Your task to perform on an android device: delete a single message in the gmail app Image 0: 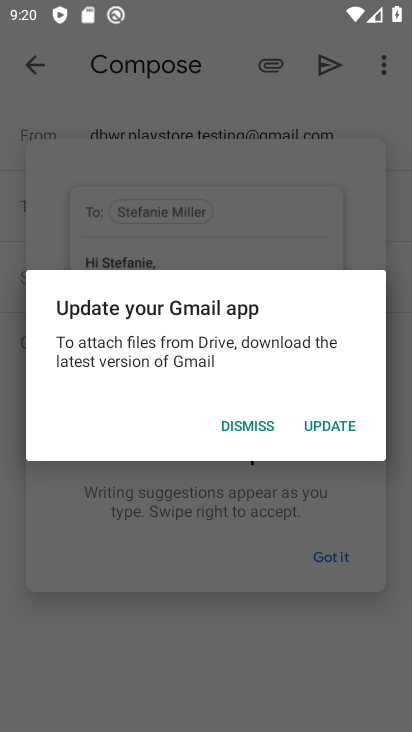
Step 0: press back button
Your task to perform on an android device: delete a single message in the gmail app Image 1: 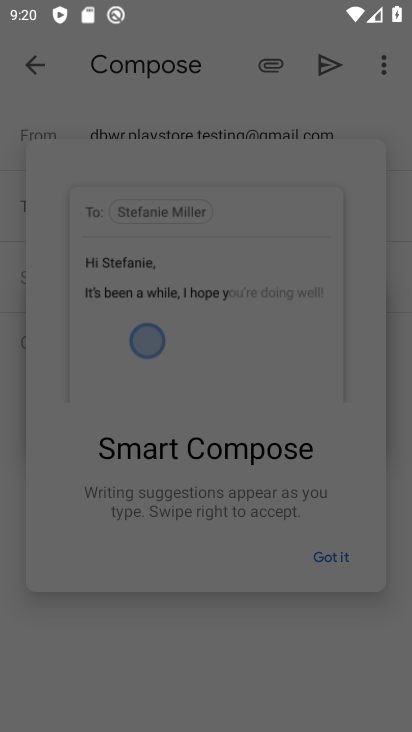
Step 1: press home button
Your task to perform on an android device: delete a single message in the gmail app Image 2: 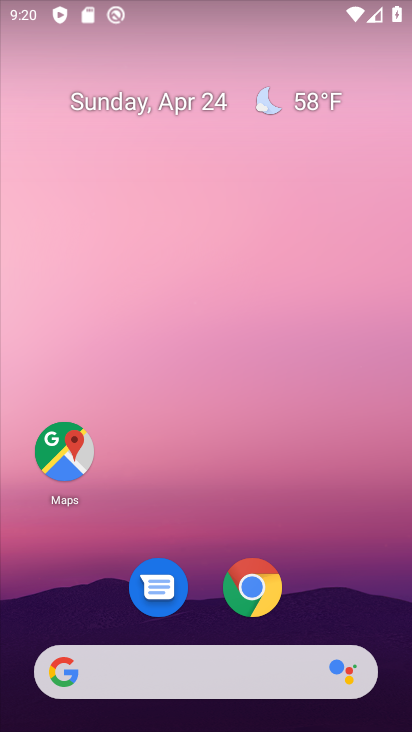
Step 2: drag from (153, 544) to (226, 50)
Your task to perform on an android device: delete a single message in the gmail app Image 3: 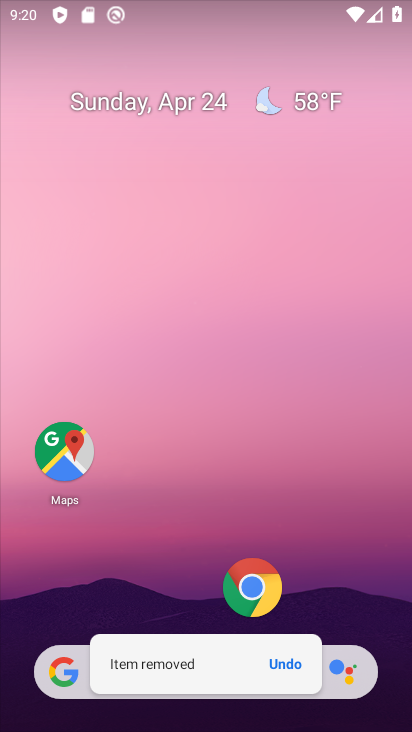
Step 3: drag from (107, 628) to (277, 52)
Your task to perform on an android device: delete a single message in the gmail app Image 4: 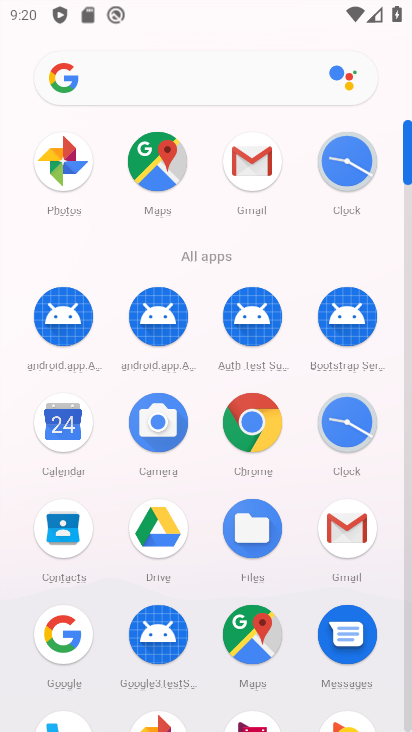
Step 4: drag from (139, 553) to (207, 284)
Your task to perform on an android device: delete a single message in the gmail app Image 5: 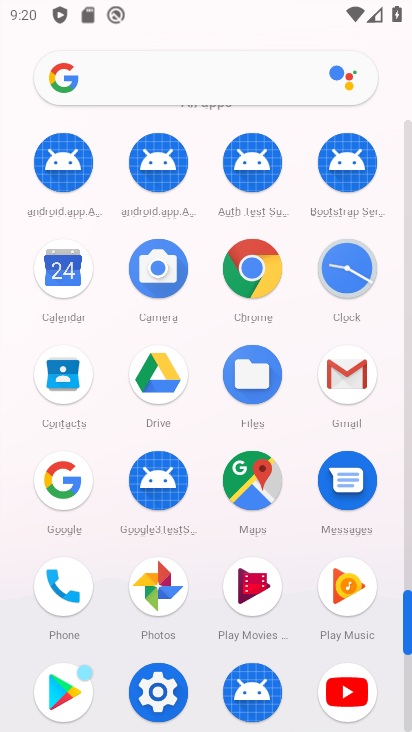
Step 5: click (349, 383)
Your task to perform on an android device: delete a single message in the gmail app Image 6: 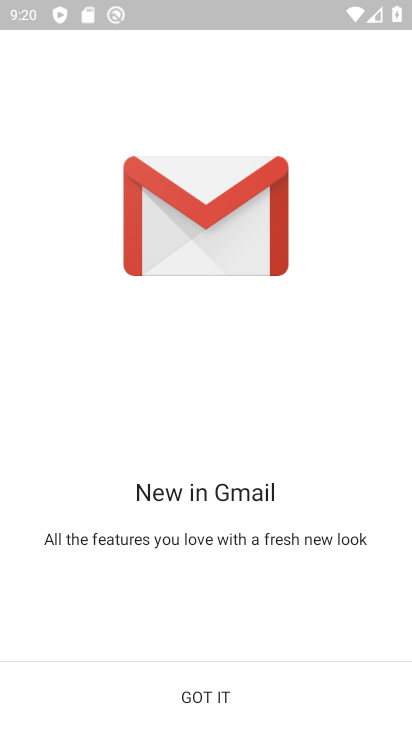
Step 6: click (259, 710)
Your task to perform on an android device: delete a single message in the gmail app Image 7: 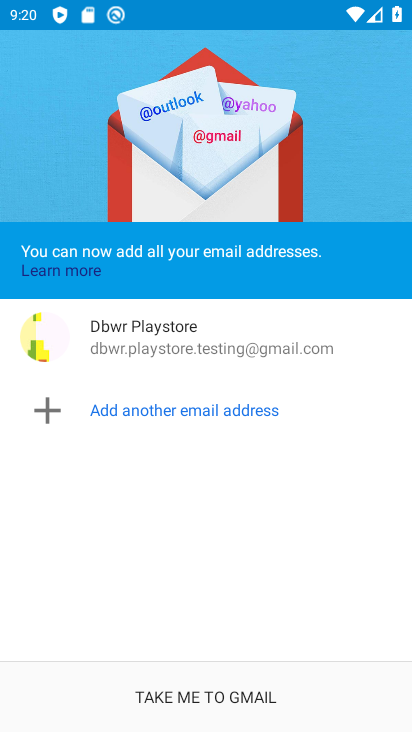
Step 7: click (265, 693)
Your task to perform on an android device: delete a single message in the gmail app Image 8: 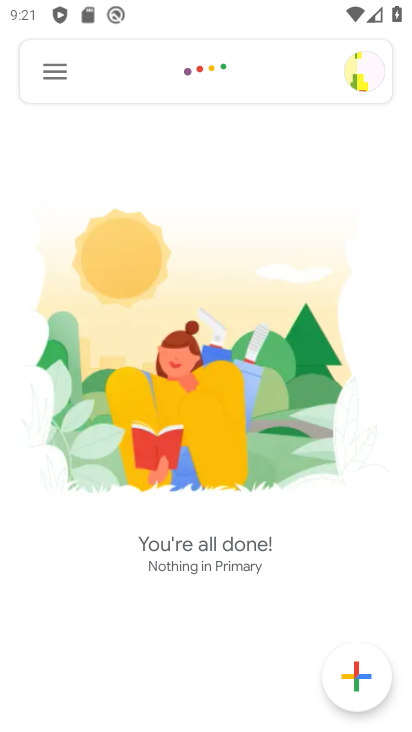
Step 8: click (37, 83)
Your task to perform on an android device: delete a single message in the gmail app Image 9: 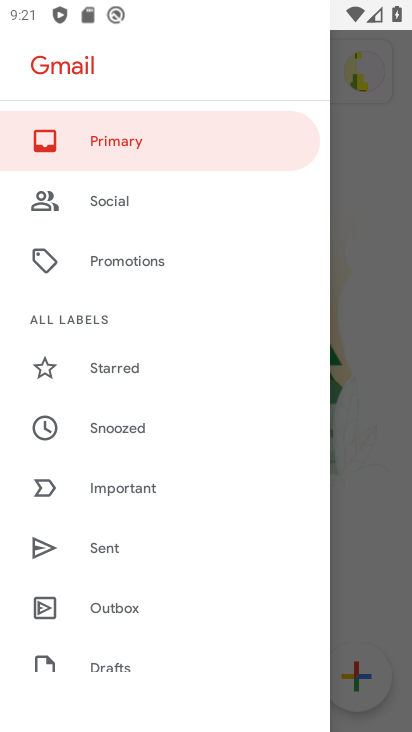
Step 9: drag from (186, 614) to (245, 343)
Your task to perform on an android device: delete a single message in the gmail app Image 10: 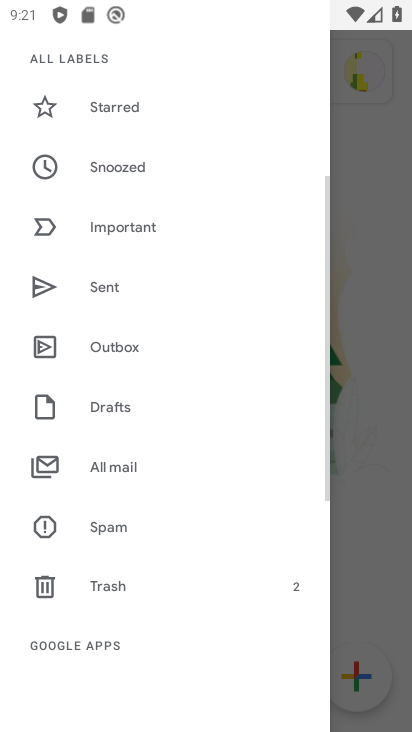
Step 10: click (162, 462)
Your task to perform on an android device: delete a single message in the gmail app Image 11: 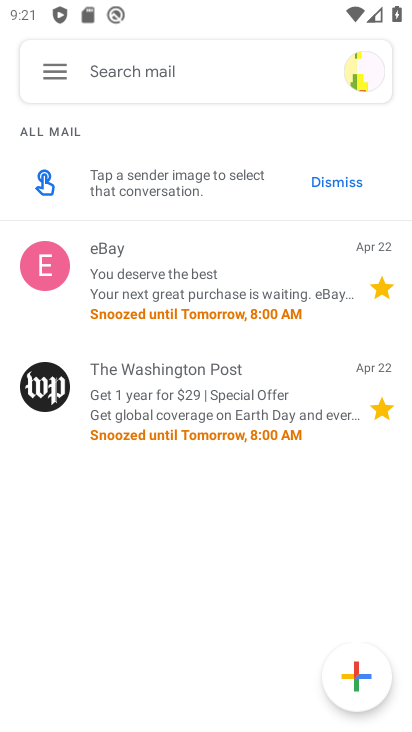
Step 11: click (198, 282)
Your task to perform on an android device: delete a single message in the gmail app Image 12: 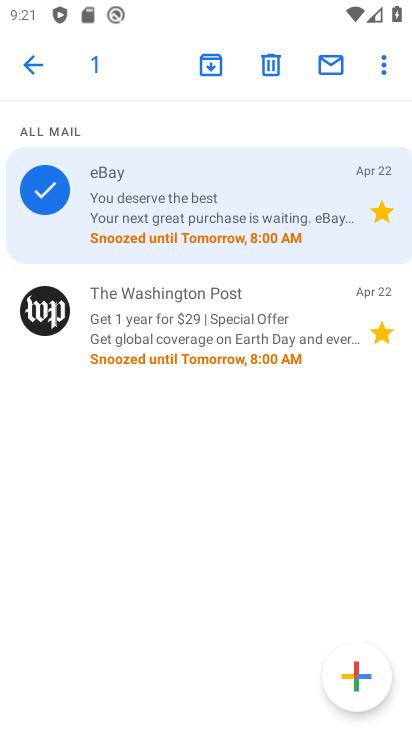
Step 12: click (276, 64)
Your task to perform on an android device: delete a single message in the gmail app Image 13: 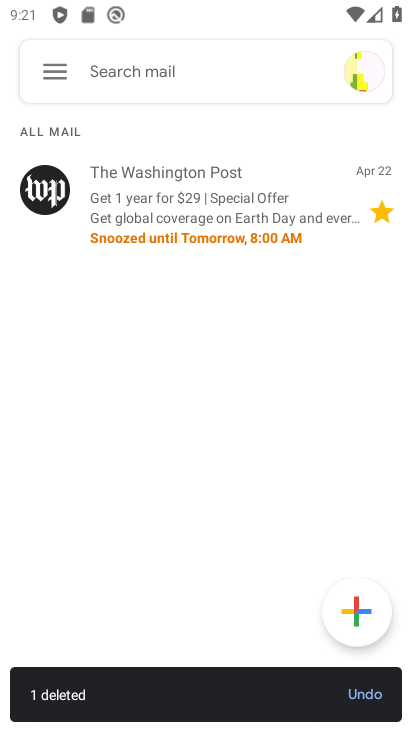
Step 13: task complete